Your task to perform on an android device: Go to Google Image 0: 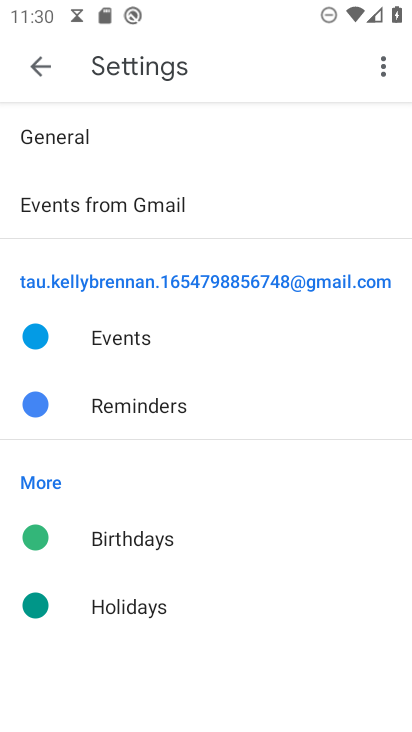
Step 0: press home button
Your task to perform on an android device: Go to Google Image 1: 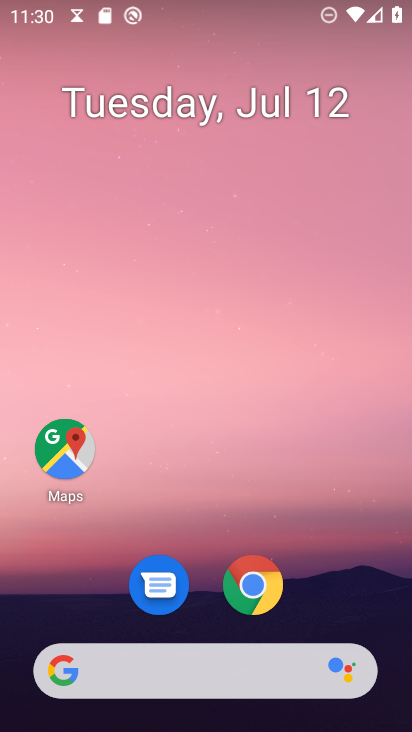
Step 1: drag from (200, 665) to (287, 174)
Your task to perform on an android device: Go to Google Image 2: 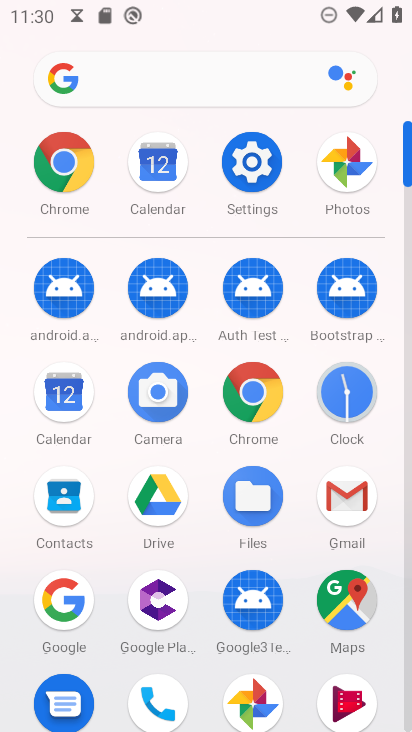
Step 2: click (68, 590)
Your task to perform on an android device: Go to Google Image 3: 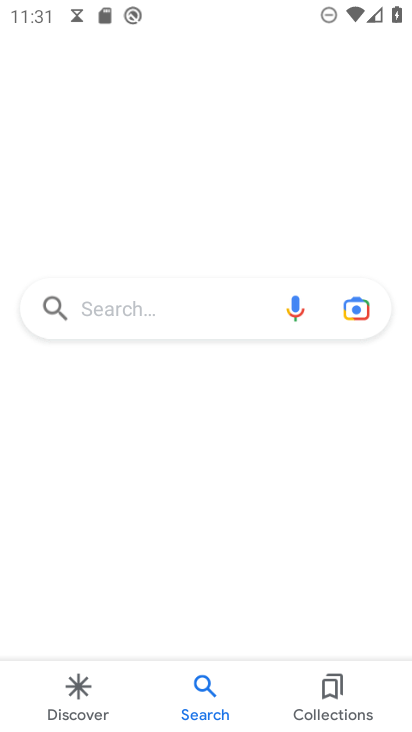
Step 3: task complete